Your task to perform on an android device: choose inbox layout in the gmail app Image 0: 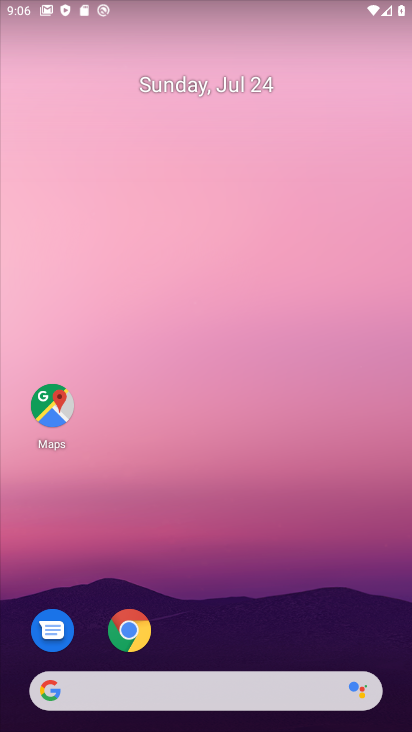
Step 0: drag from (264, 636) to (228, 62)
Your task to perform on an android device: choose inbox layout in the gmail app Image 1: 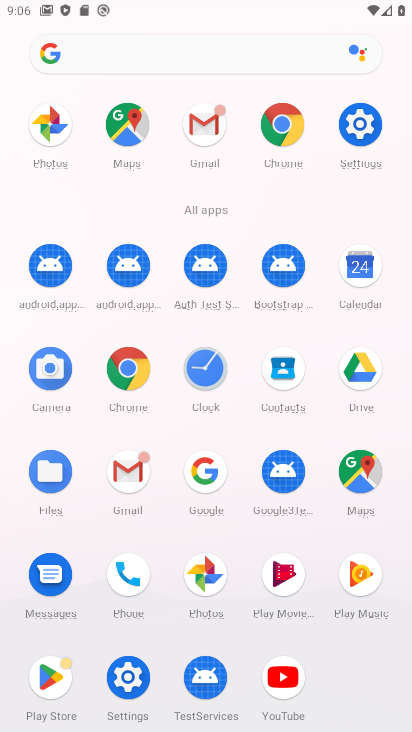
Step 1: click (121, 467)
Your task to perform on an android device: choose inbox layout in the gmail app Image 2: 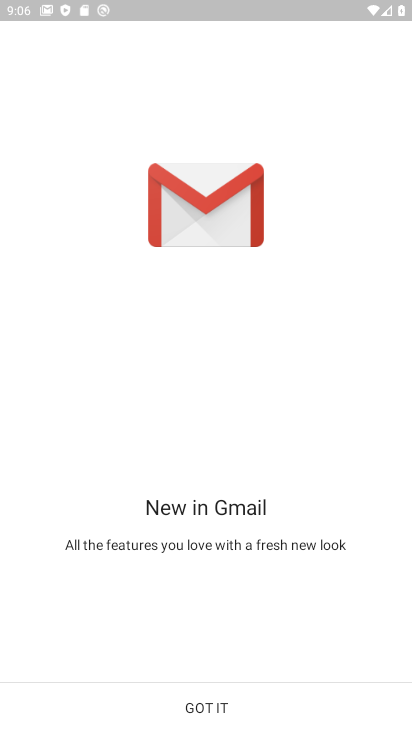
Step 2: click (183, 710)
Your task to perform on an android device: choose inbox layout in the gmail app Image 3: 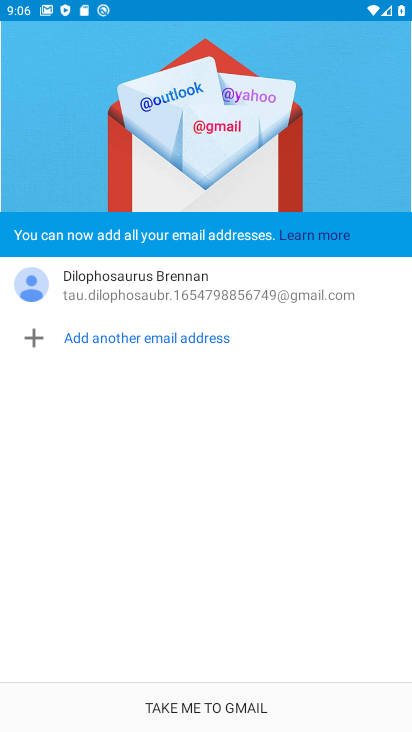
Step 3: click (239, 705)
Your task to perform on an android device: choose inbox layout in the gmail app Image 4: 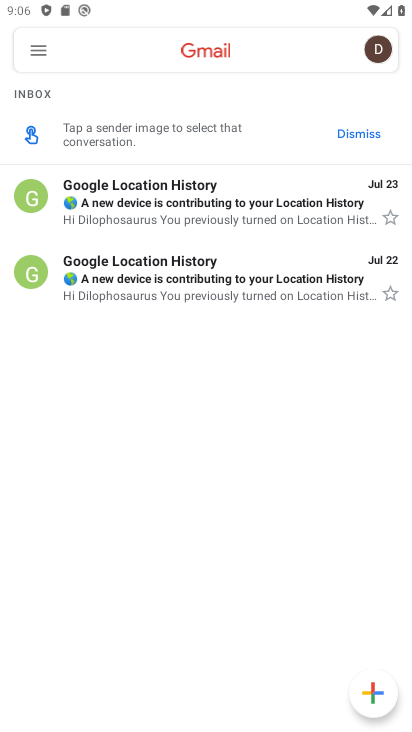
Step 4: click (34, 43)
Your task to perform on an android device: choose inbox layout in the gmail app Image 5: 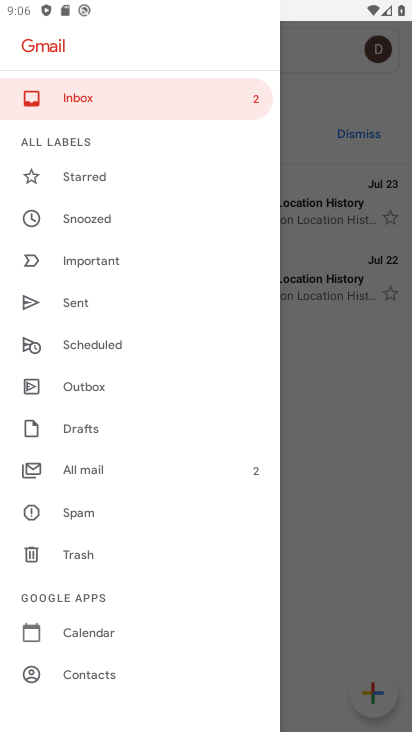
Step 5: drag from (90, 642) to (153, 166)
Your task to perform on an android device: choose inbox layout in the gmail app Image 6: 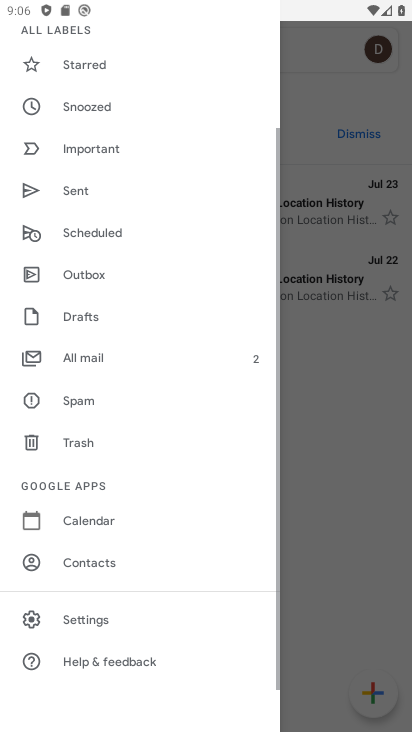
Step 6: click (69, 619)
Your task to perform on an android device: choose inbox layout in the gmail app Image 7: 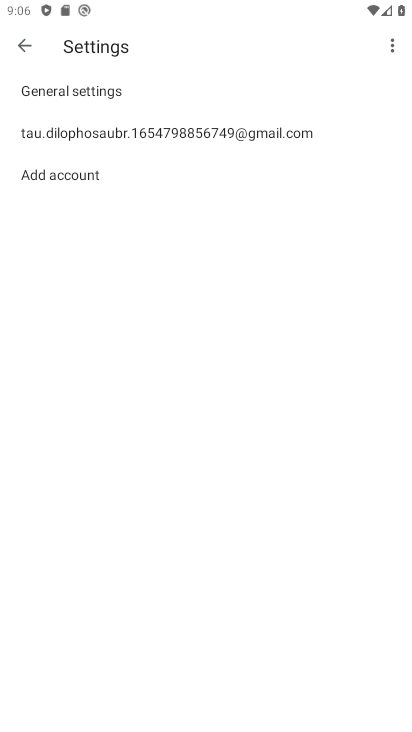
Step 7: click (58, 131)
Your task to perform on an android device: choose inbox layout in the gmail app Image 8: 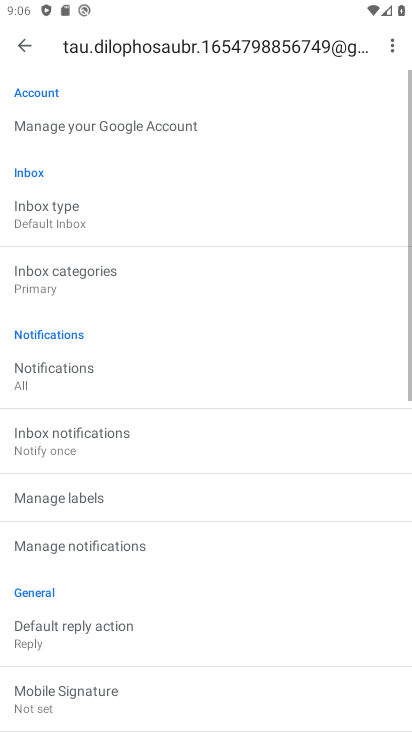
Step 8: click (57, 204)
Your task to perform on an android device: choose inbox layout in the gmail app Image 9: 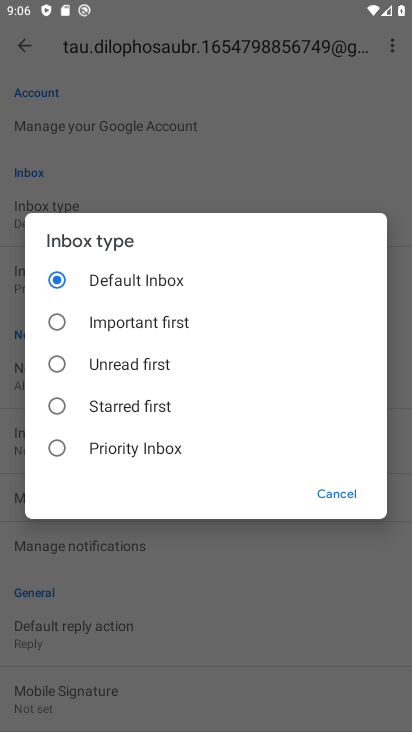
Step 9: click (105, 358)
Your task to perform on an android device: choose inbox layout in the gmail app Image 10: 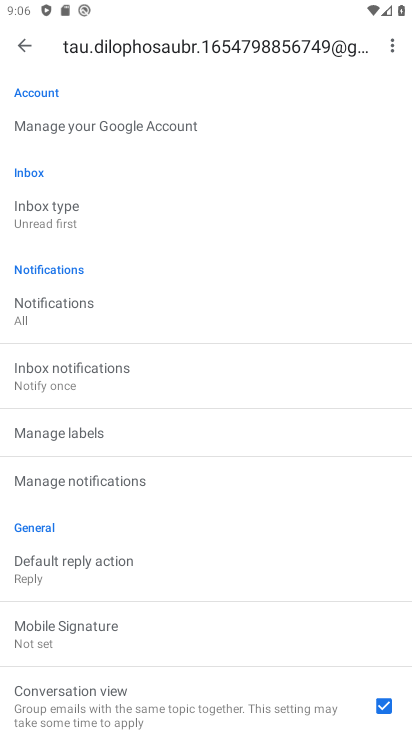
Step 10: task complete